Your task to perform on an android device: Open the Play Movies app and select the watchlist tab. Image 0: 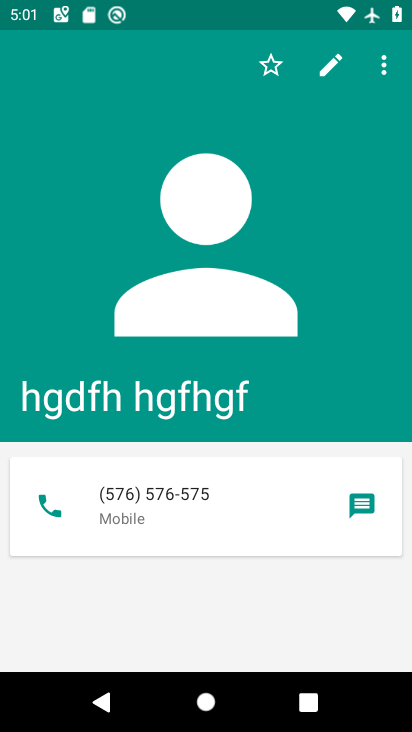
Step 0: press home button
Your task to perform on an android device: Open the Play Movies app and select the watchlist tab. Image 1: 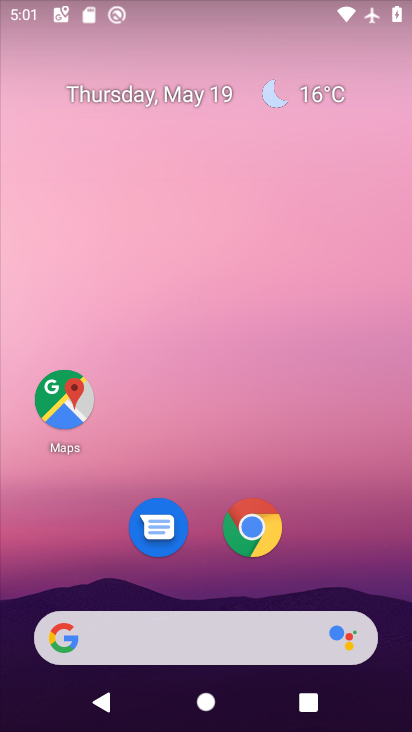
Step 1: drag from (331, 473) to (207, 9)
Your task to perform on an android device: Open the Play Movies app and select the watchlist tab. Image 2: 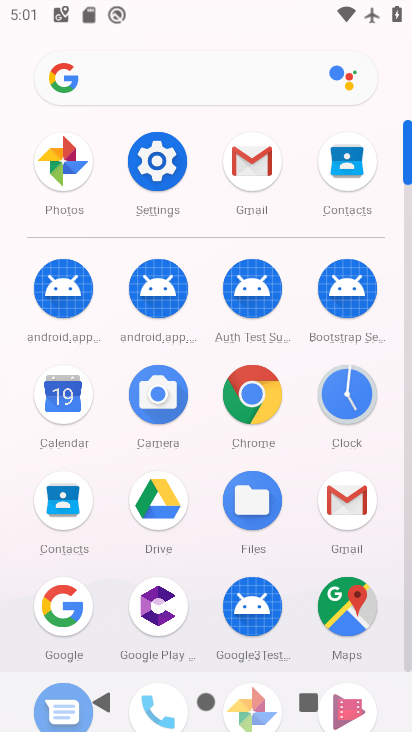
Step 2: drag from (307, 562) to (283, 98)
Your task to perform on an android device: Open the Play Movies app and select the watchlist tab. Image 3: 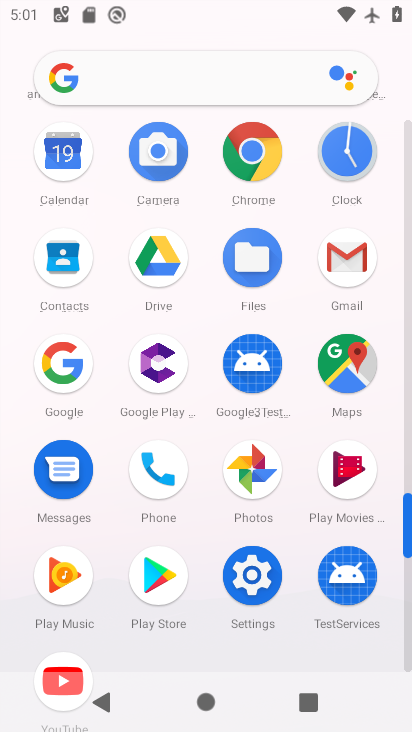
Step 3: click (349, 475)
Your task to perform on an android device: Open the Play Movies app and select the watchlist tab. Image 4: 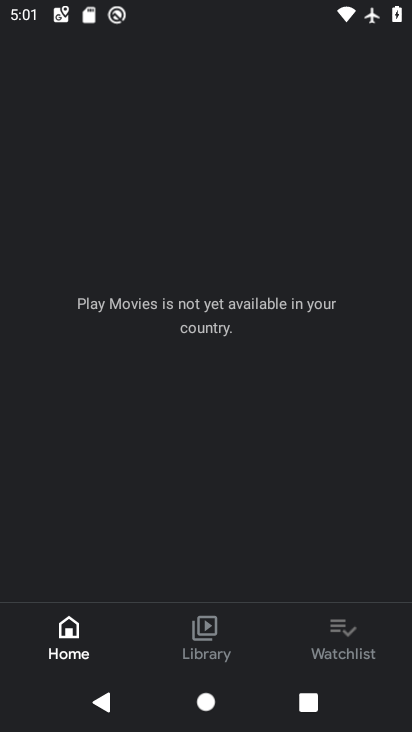
Step 4: click (362, 647)
Your task to perform on an android device: Open the Play Movies app and select the watchlist tab. Image 5: 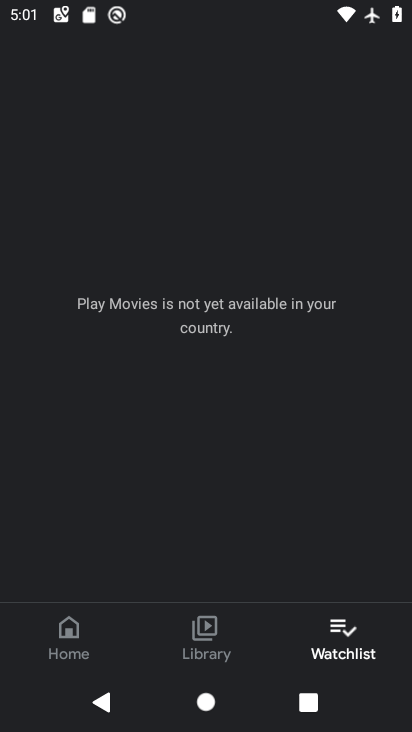
Step 5: task complete